Your task to perform on an android device: turn off picture-in-picture Image 0: 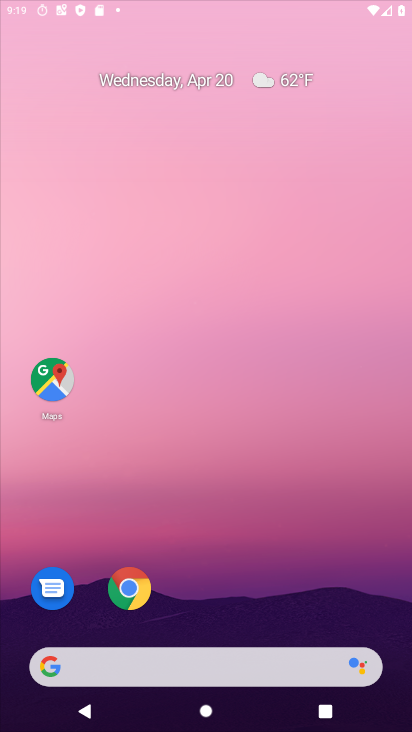
Step 0: click (241, 36)
Your task to perform on an android device: turn off picture-in-picture Image 1: 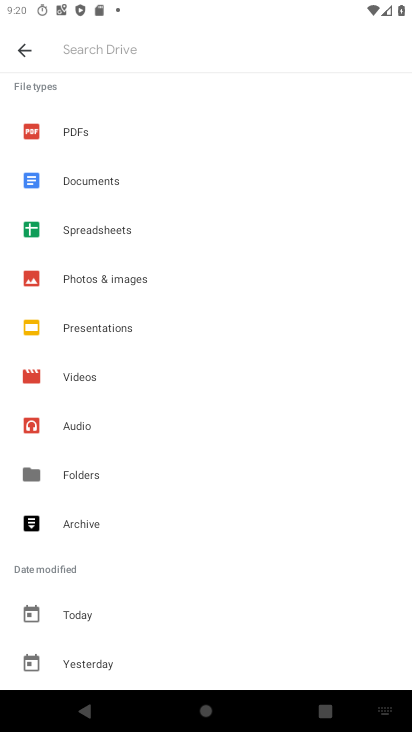
Step 1: press back button
Your task to perform on an android device: turn off picture-in-picture Image 2: 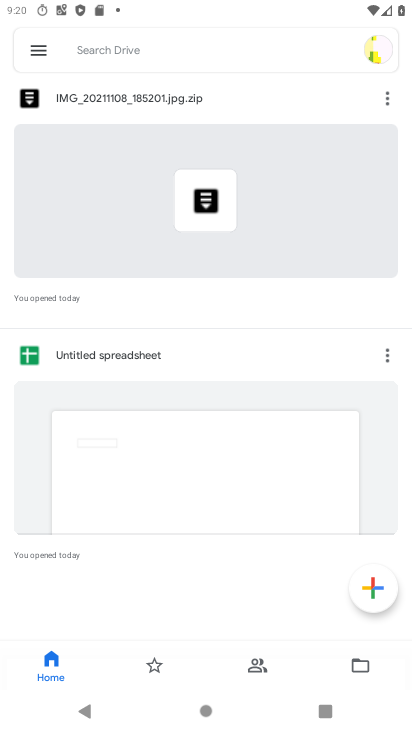
Step 2: press back button
Your task to perform on an android device: turn off picture-in-picture Image 3: 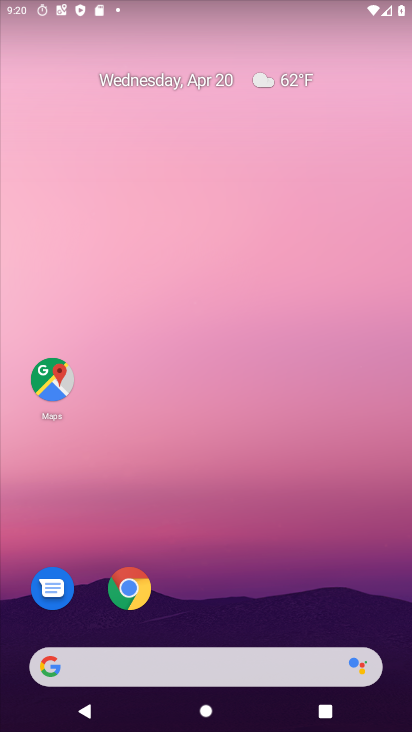
Step 3: drag from (238, 531) to (172, 17)
Your task to perform on an android device: turn off picture-in-picture Image 4: 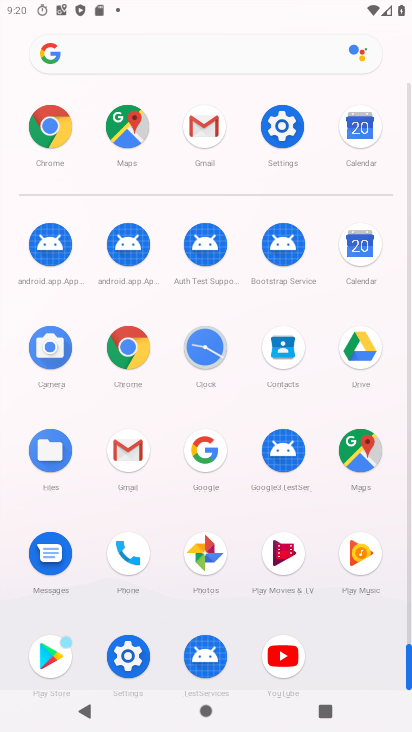
Step 4: drag from (1, 494) to (19, 245)
Your task to perform on an android device: turn off picture-in-picture Image 5: 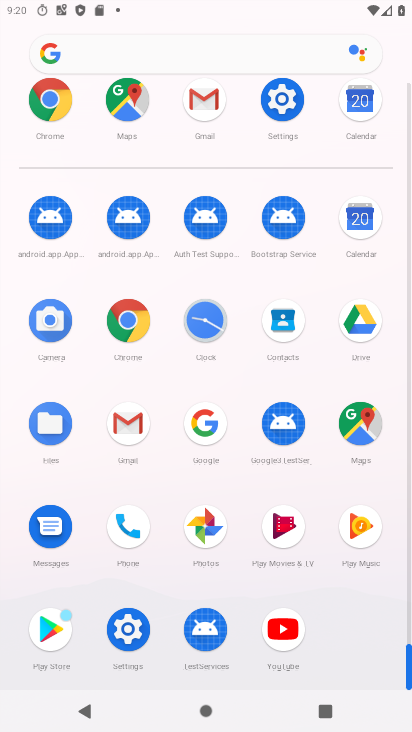
Step 5: click (130, 635)
Your task to perform on an android device: turn off picture-in-picture Image 6: 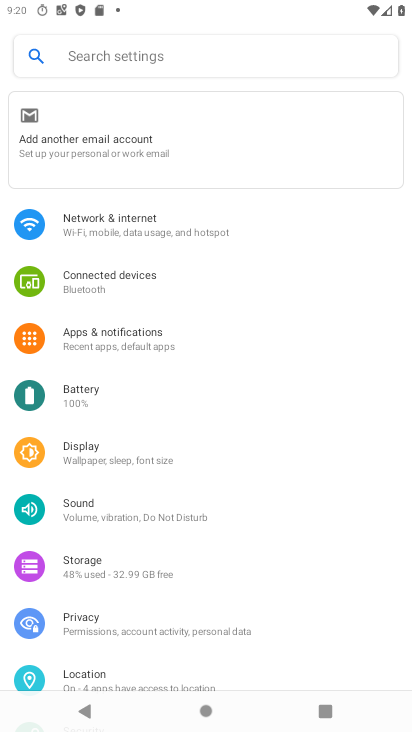
Step 6: click (156, 344)
Your task to perform on an android device: turn off picture-in-picture Image 7: 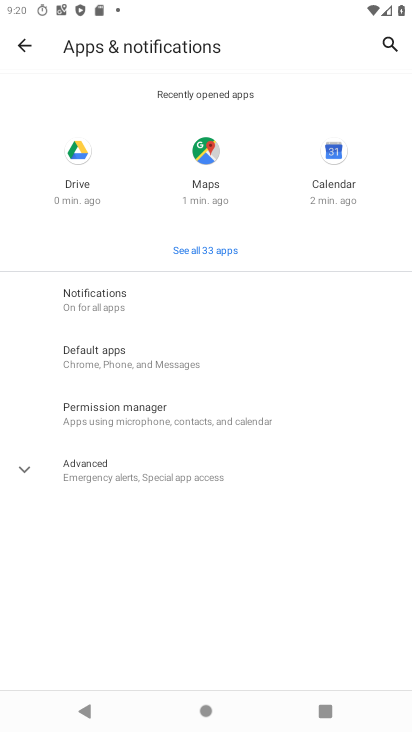
Step 7: click (27, 475)
Your task to perform on an android device: turn off picture-in-picture Image 8: 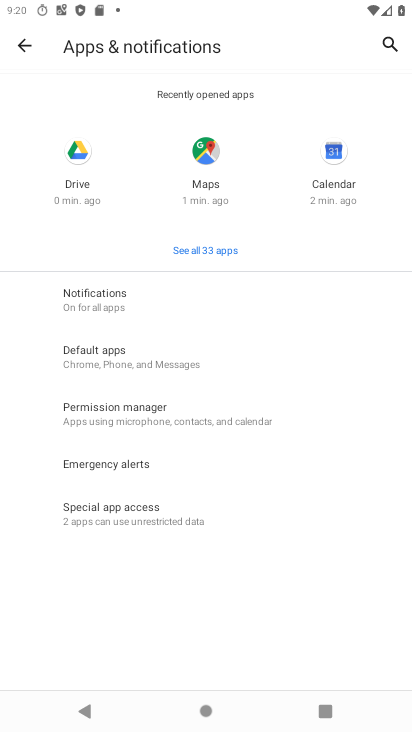
Step 8: click (131, 511)
Your task to perform on an android device: turn off picture-in-picture Image 9: 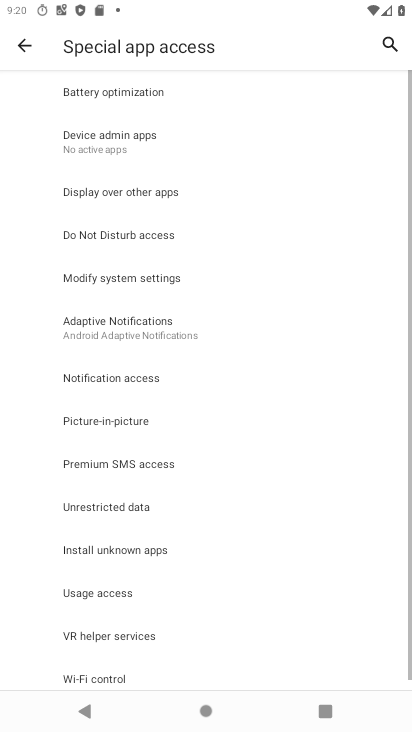
Step 9: drag from (282, 615) to (291, 309)
Your task to perform on an android device: turn off picture-in-picture Image 10: 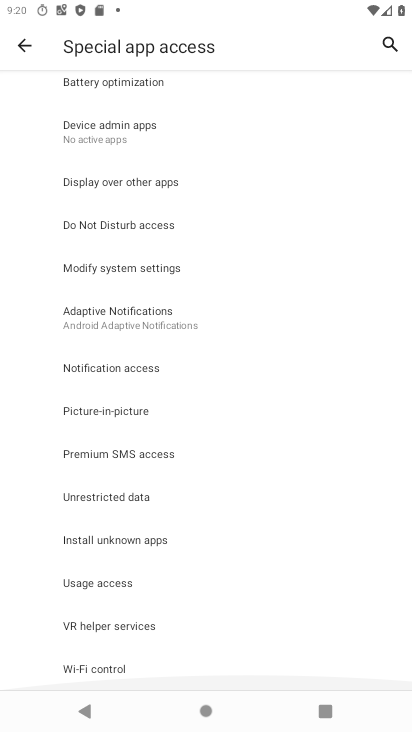
Step 10: click (137, 412)
Your task to perform on an android device: turn off picture-in-picture Image 11: 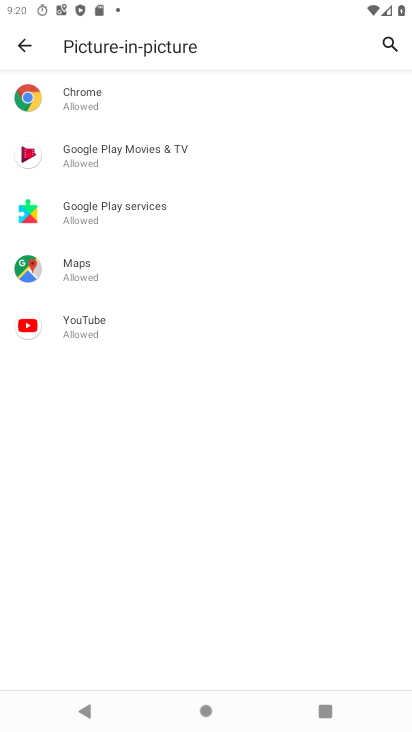
Step 11: click (98, 103)
Your task to perform on an android device: turn off picture-in-picture Image 12: 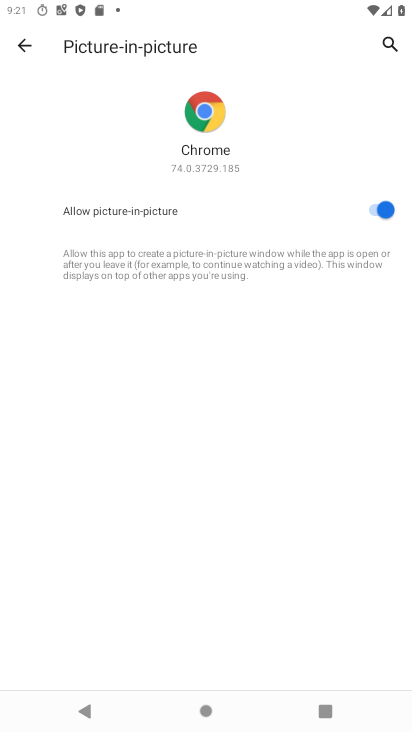
Step 12: click (380, 209)
Your task to perform on an android device: turn off picture-in-picture Image 13: 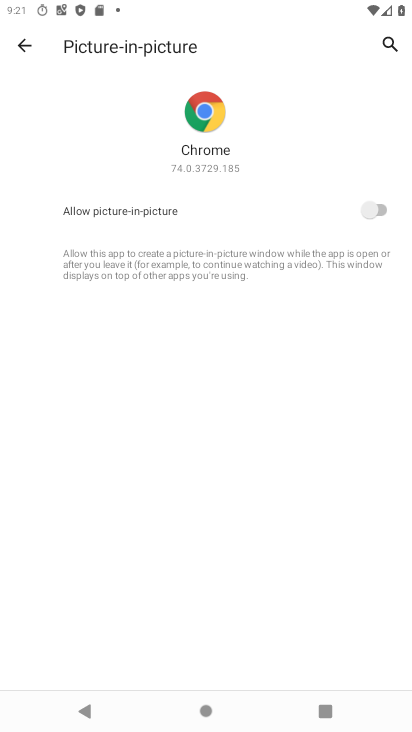
Step 13: click (30, 53)
Your task to perform on an android device: turn off picture-in-picture Image 14: 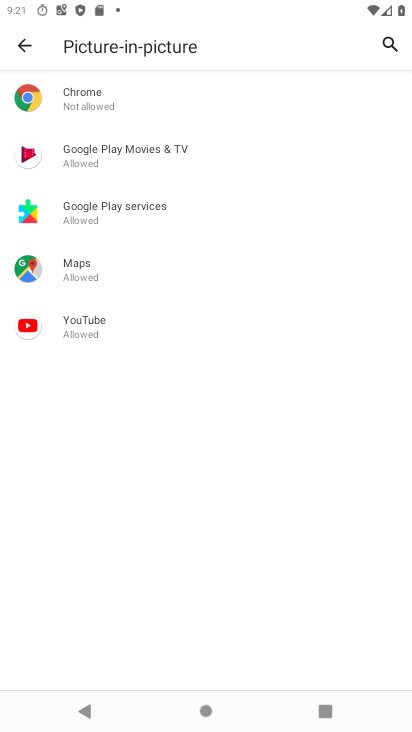
Step 14: click (105, 156)
Your task to perform on an android device: turn off picture-in-picture Image 15: 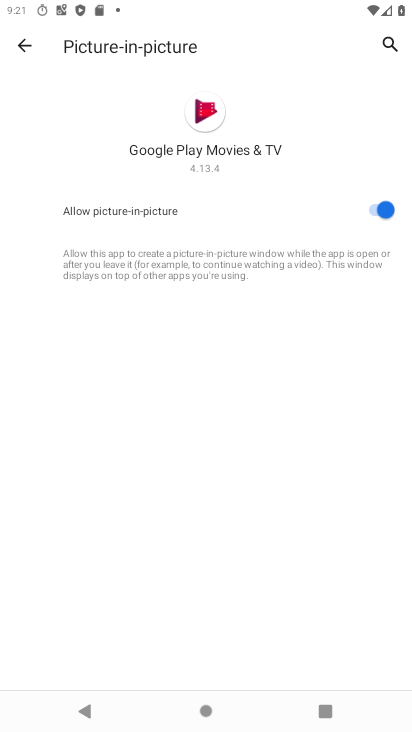
Step 15: click (369, 213)
Your task to perform on an android device: turn off picture-in-picture Image 16: 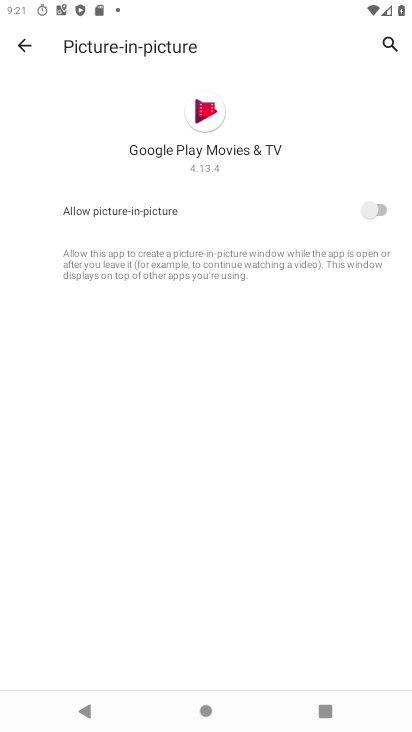
Step 16: click (43, 56)
Your task to perform on an android device: turn off picture-in-picture Image 17: 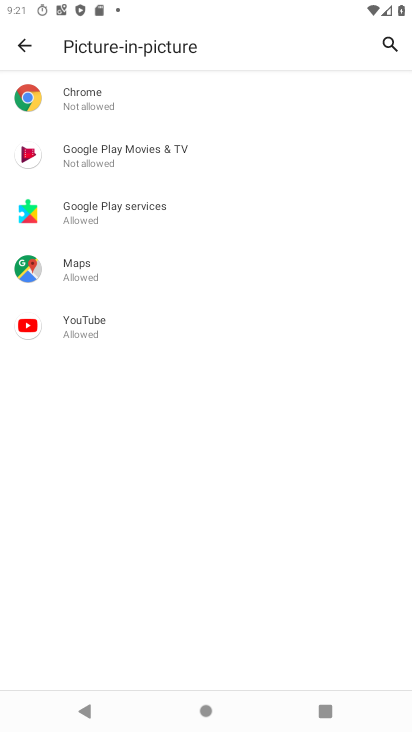
Step 17: click (110, 223)
Your task to perform on an android device: turn off picture-in-picture Image 18: 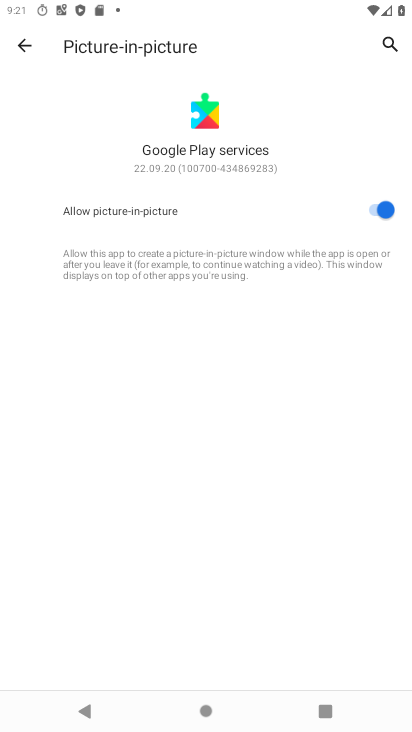
Step 18: click (381, 205)
Your task to perform on an android device: turn off picture-in-picture Image 19: 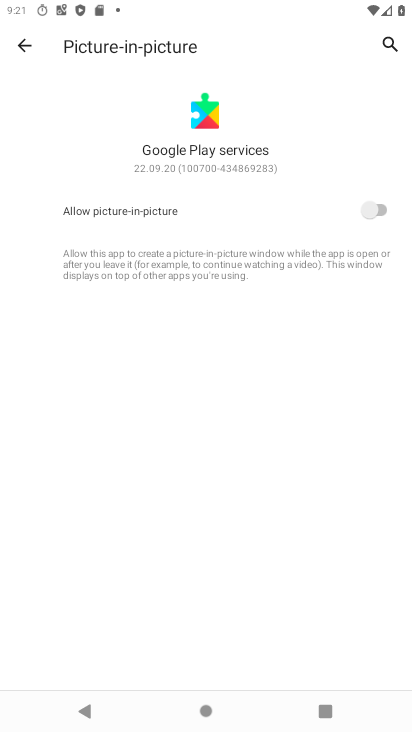
Step 19: click (13, 36)
Your task to perform on an android device: turn off picture-in-picture Image 20: 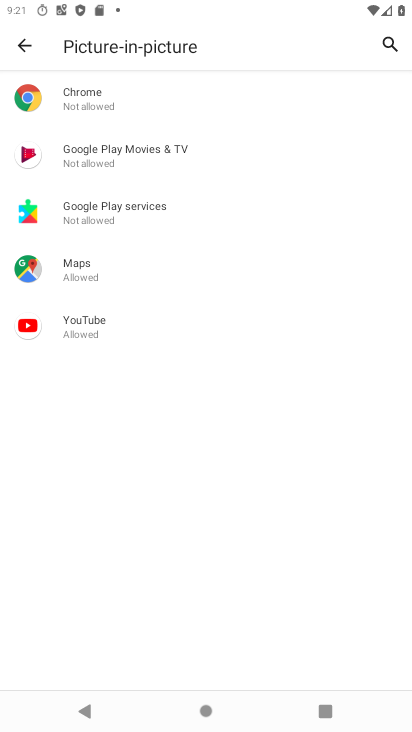
Step 20: click (114, 277)
Your task to perform on an android device: turn off picture-in-picture Image 21: 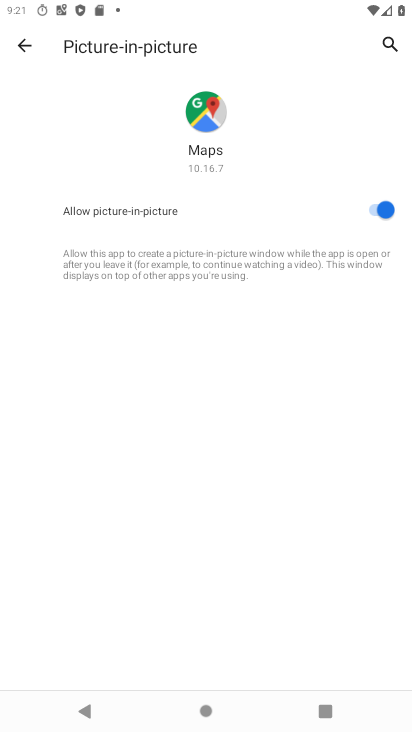
Step 21: click (378, 216)
Your task to perform on an android device: turn off picture-in-picture Image 22: 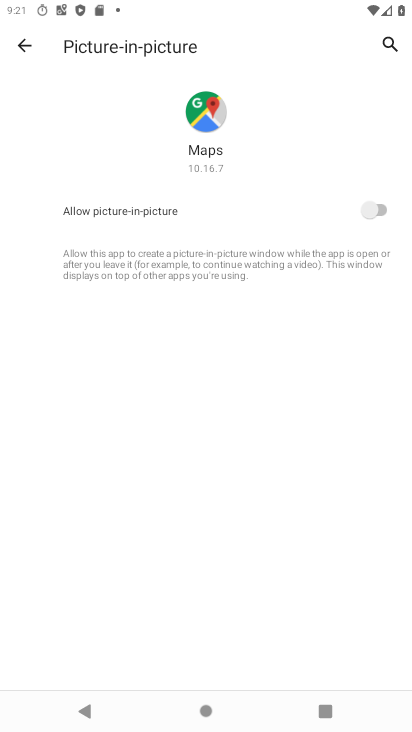
Step 22: click (35, 45)
Your task to perform on an android device: turn off picture-in-picture Image 23: 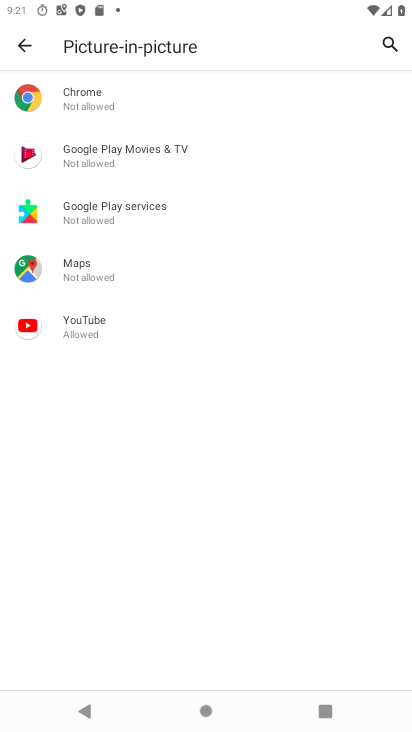
Step 23: click (123, 327)
Your task to perform on an android device: turn off picture-in-picture Image 24: 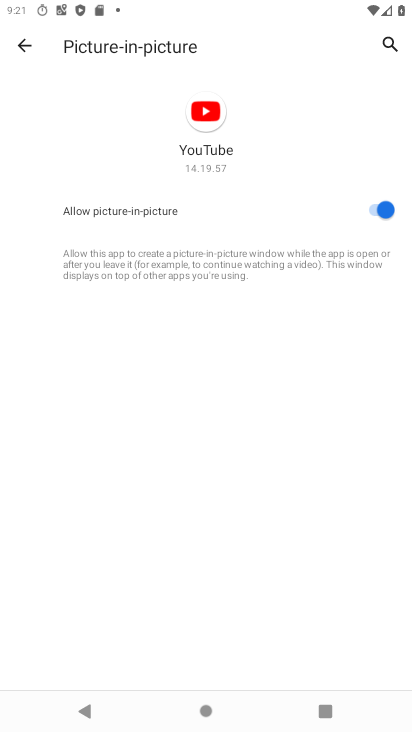
Step 24: click (367, 203)
Your task to perform on an android device: turn off picture-in-picture Image 25: 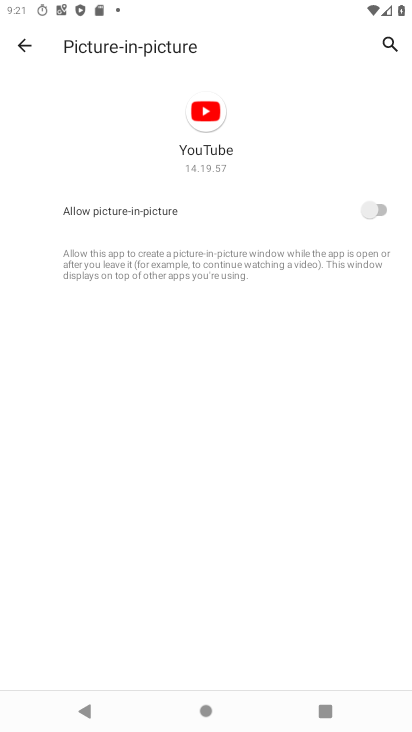
Step 25: click (13, 48)
Your task to perform on an android device: turn off picture-in-picture Image 26: 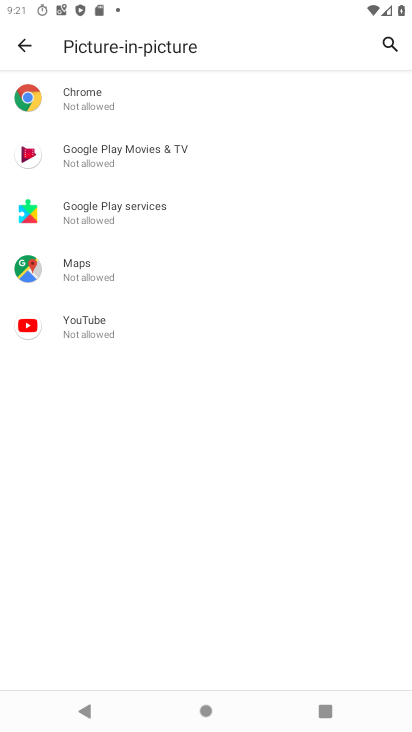
Step 26: task complete